Your task to perform on an android device: toggle data saver in the chrome app Image 0: 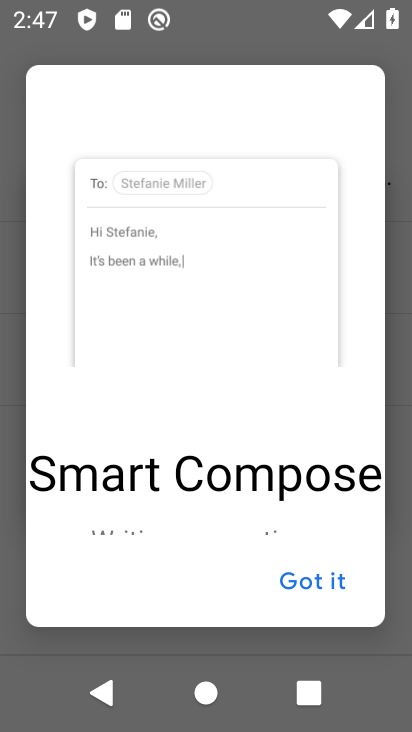
Step 0: press home button
Your task to perform on an android device: toggle data saver in the chrome app Image 1: 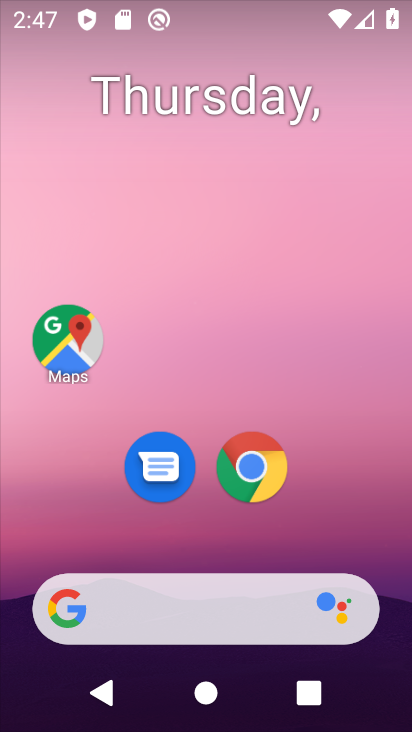
Step 1: click (250, 479)
Your task to perform on an android device: toggle data saver in the chrome app Image 2: 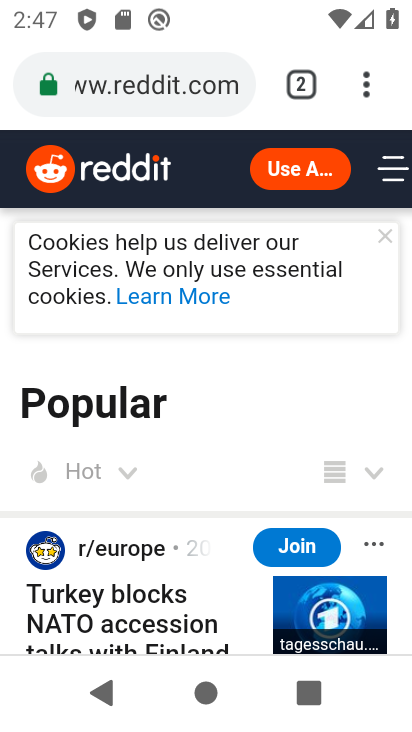
Step 2: drag from (371, 74) to (98, 514)
Your task to perform on an android device: toggle data saver in the chrome app Image 3: 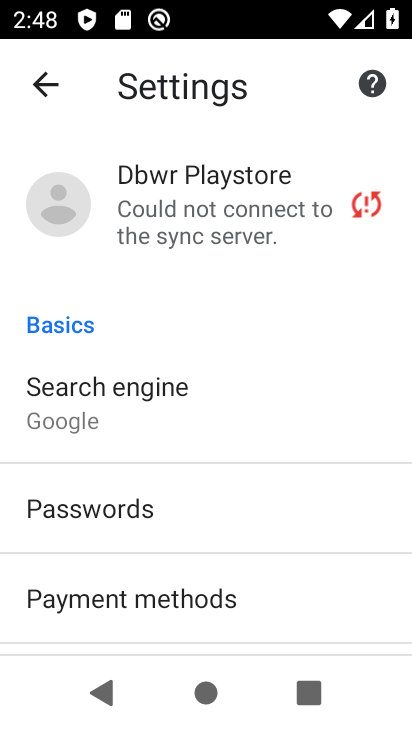
Step 3: drag from (179, 555) to (170, 109)
Your task to perform on an android device: toggle data saver in the chrome app Image 4: 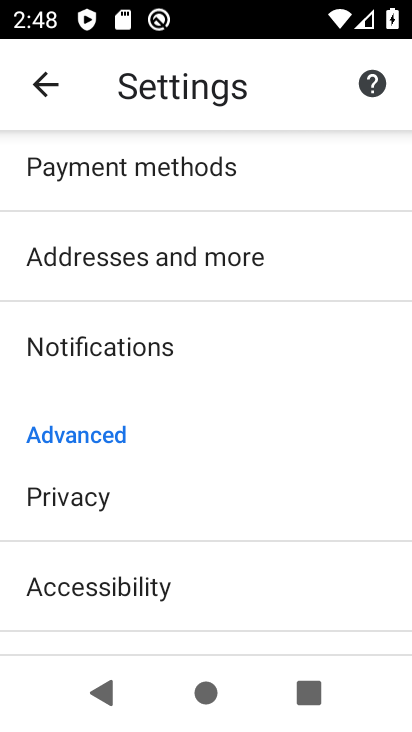
Step 4: drag from (160, 569) to (124, 72)
Your task to perform on an android device: toggle data saver in the chrome app Image 5: 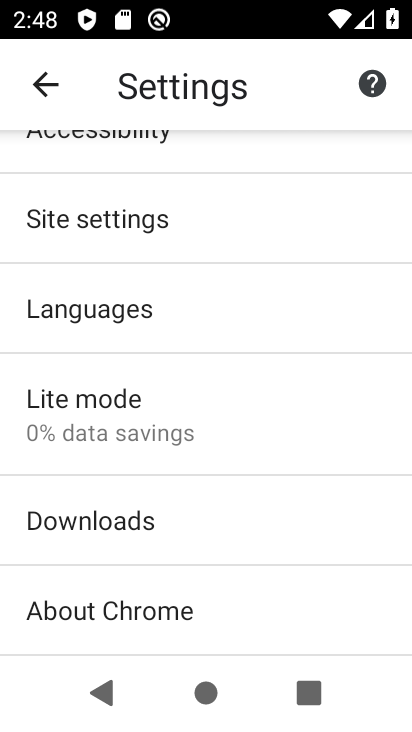
Step 5: click (93, 433)
Your task to perform on an android device: toggle data saver in the chrome app Image 6: 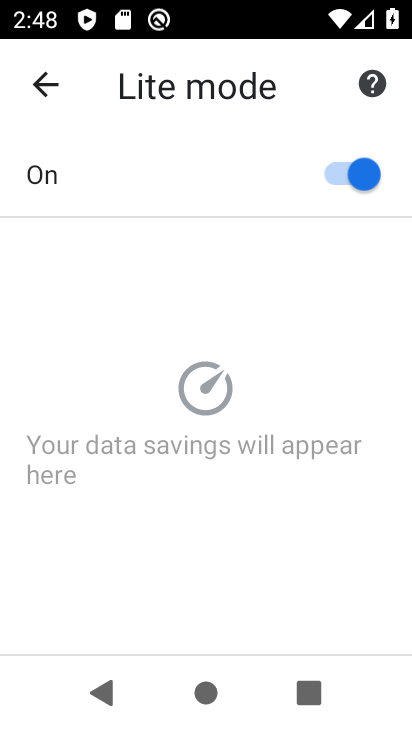
Step 6: click (359, 170)
Your task to perform on an android device: toggle data saver in the chrome app Image 7: 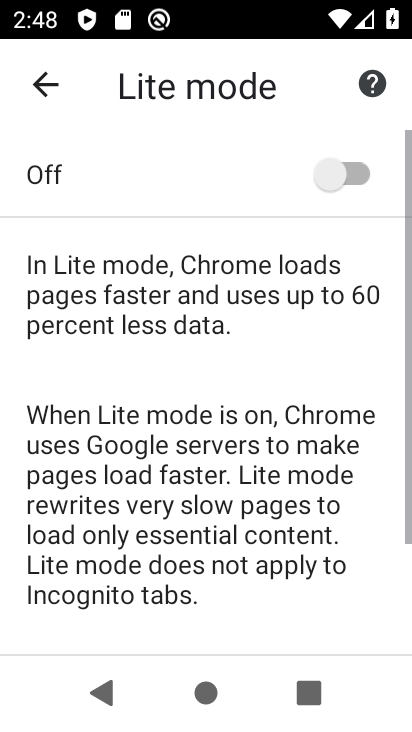
Step 7: task complete